Your task to perform on an android device: turn on showing notifications on the lock screen Image 0: 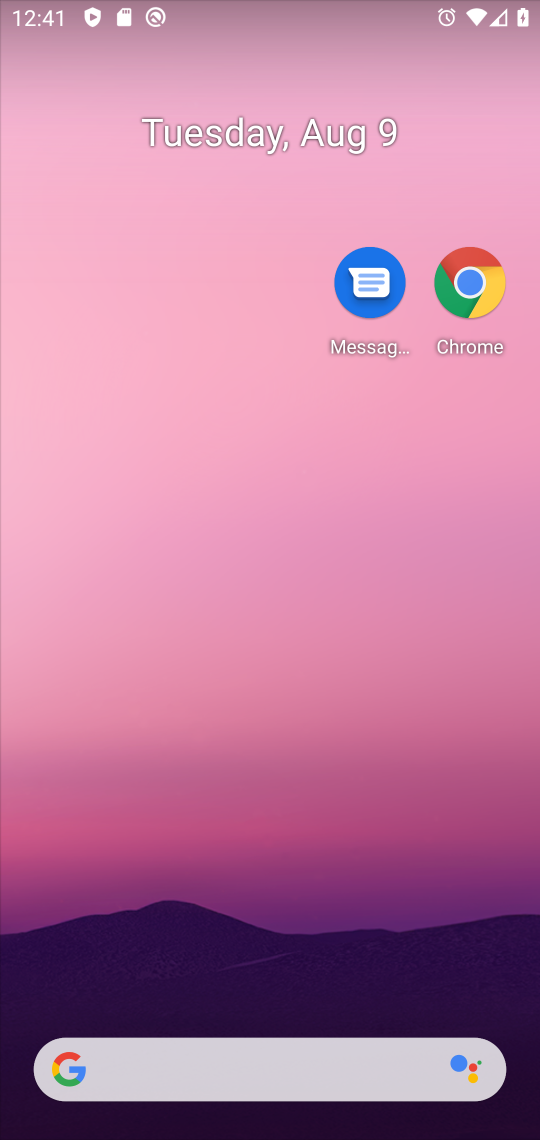
Step 0: drag from (240, 962) to (11, 418)
Your task to perform on an android device: turn on showing notifications on the lock screen Image 1: 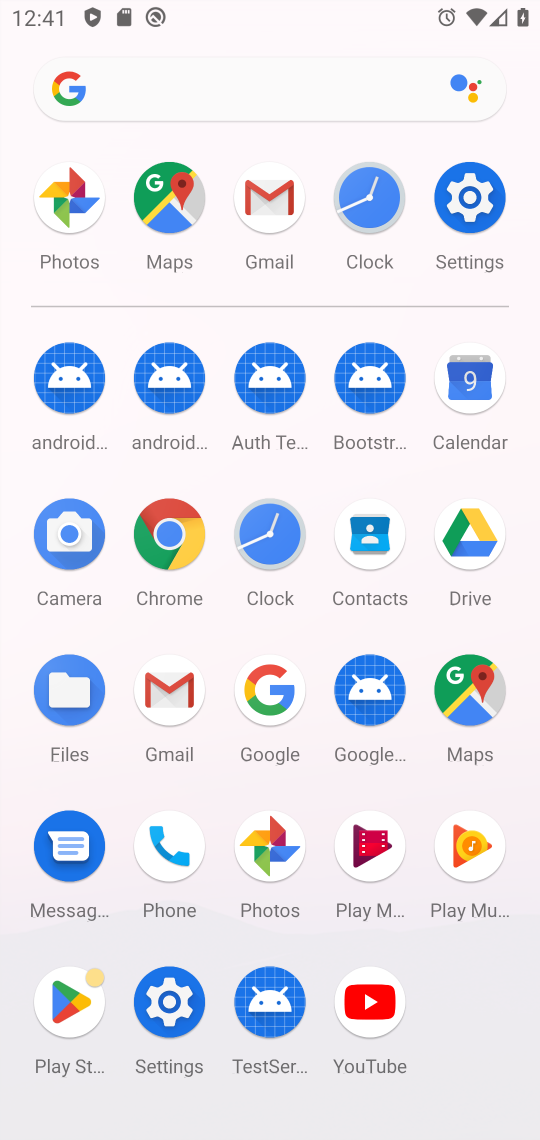
Step 1: click (465, 188)
Your task to perform on an android device: turn on showing notifications on the lock screen Image 2: 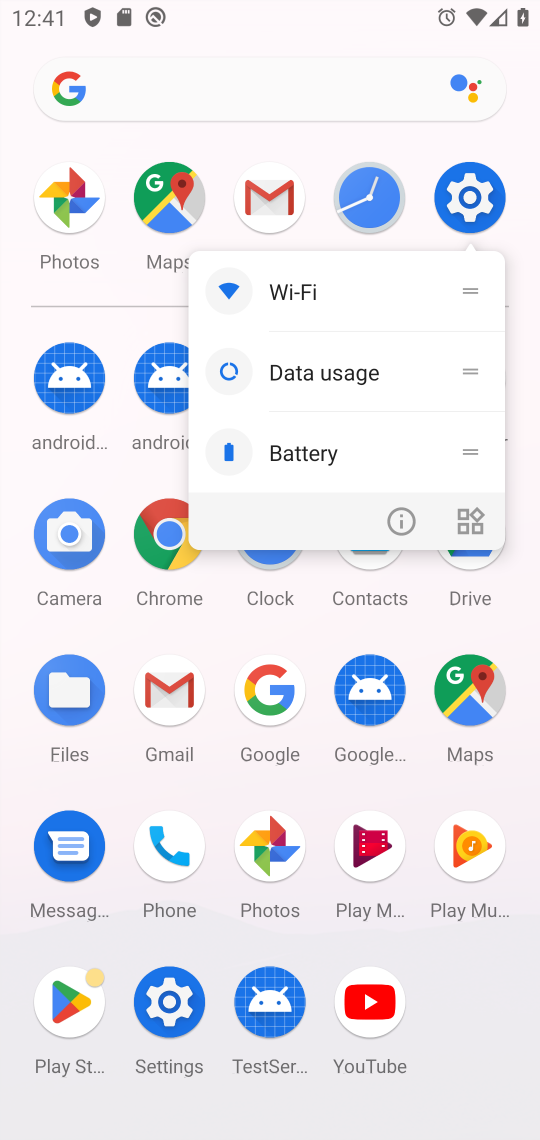
Step 2: click (404, 516)
Your task to perform on an android device: turn on showing notifications on the lock screen Image 3: 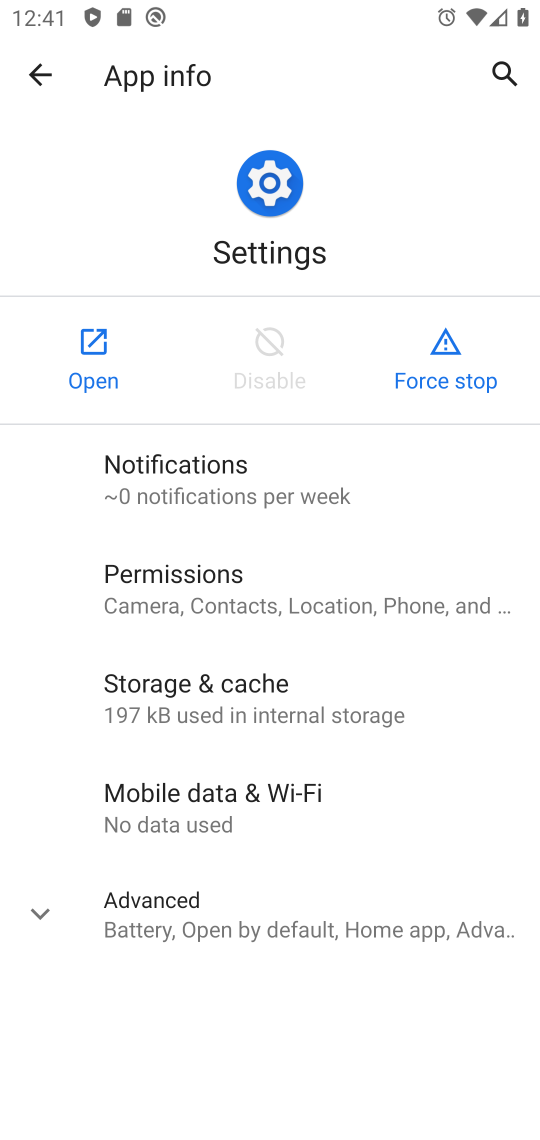
Step 3: click (64, 359)
Your task to perform on an android device: turn on showing notifications on the lock screen Image 4: 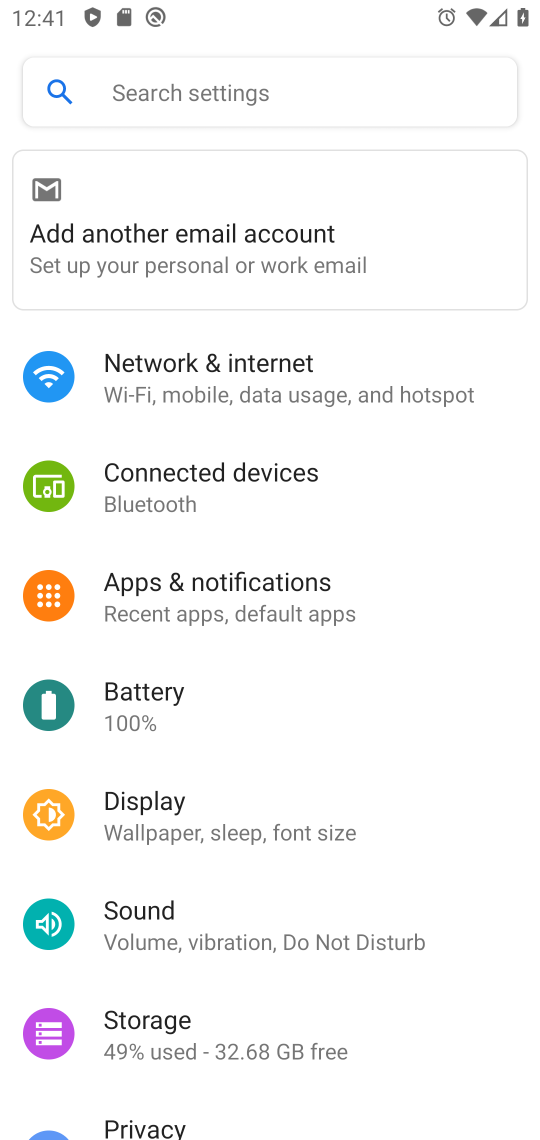
Step 4: click (207, 598)
Your task to perform on an android device: turn on showing notifications on the lock screen Image 5: 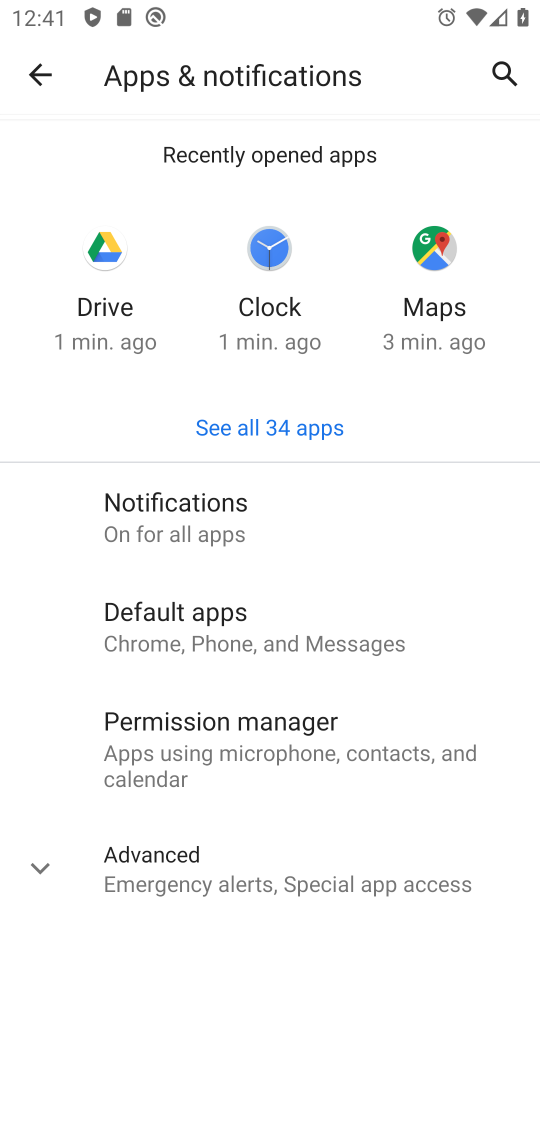
Step 5: click (228, 527)
Your task to perform on an android device: turn on showing notifications on the lock screen Image 6: 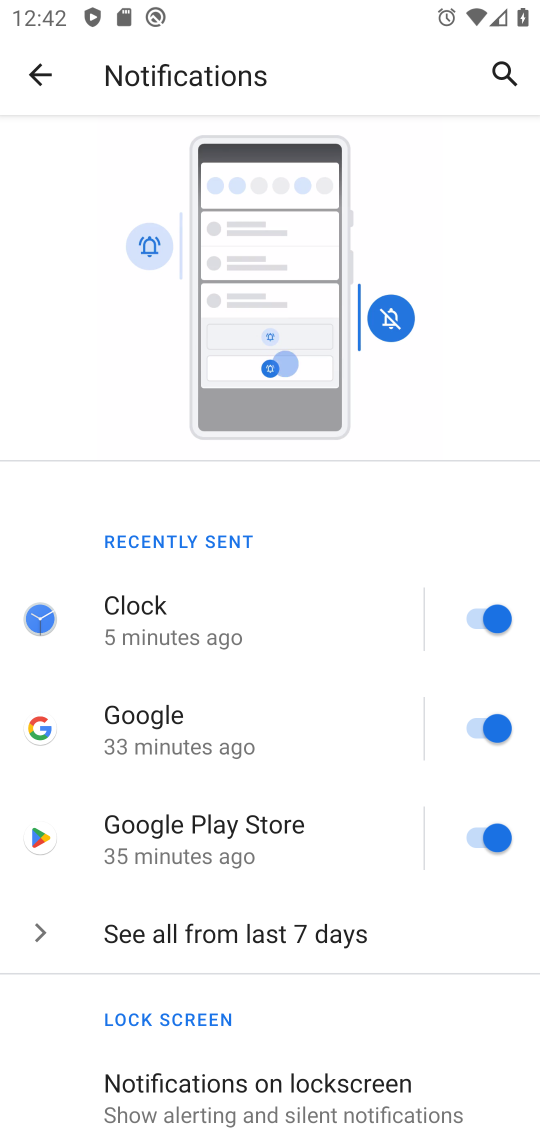
Step 6: drag from (283, 1017) to (450, 170)
Your task to perform on an android device: turn on showing notifications on the lock screen Image 7: 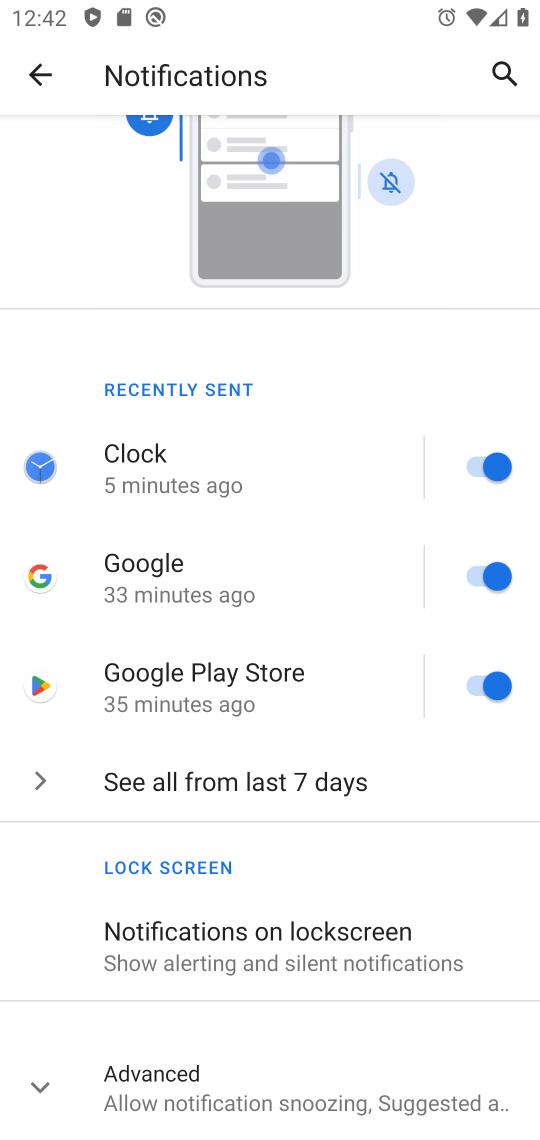
Step 7: click (227, 995)
Your task to perform on an android device: turn on showing notifications on the lock screen Image 8: 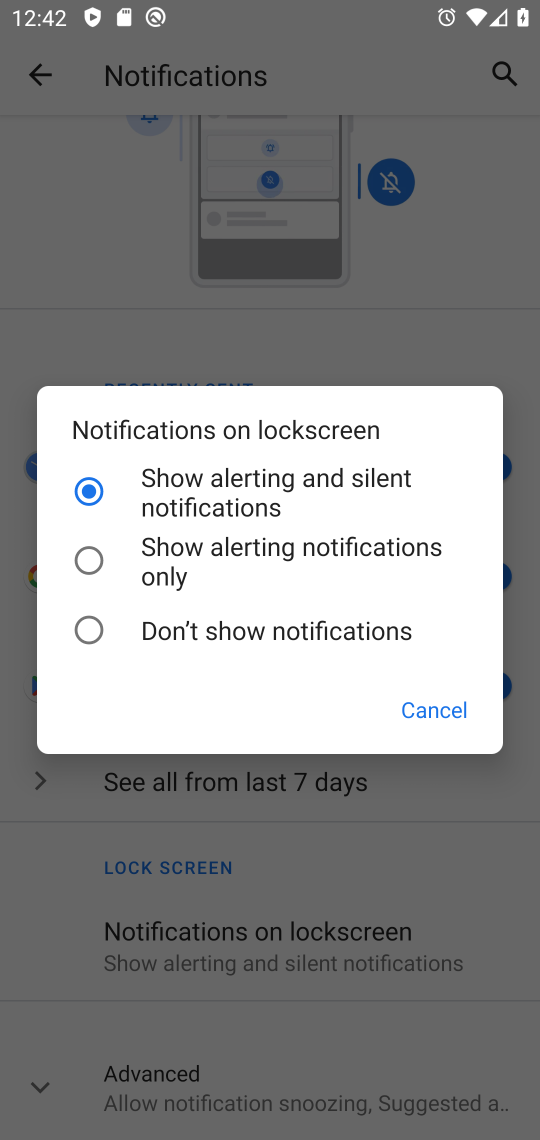
Step 8: click (130, 539)
Your task to perform on an android device: turn on showing notifications on the lock screen Image 9: 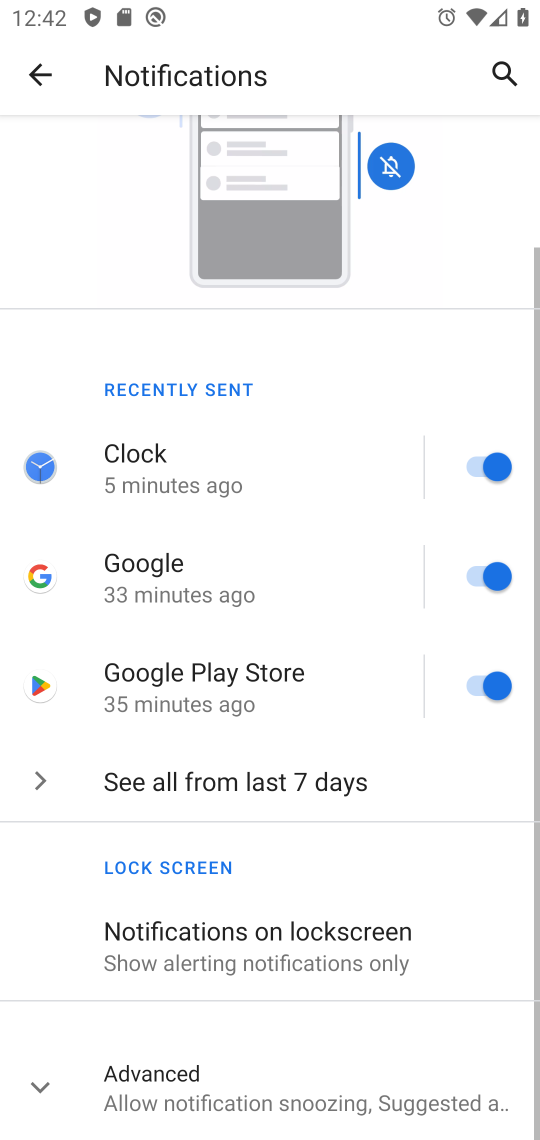
Step 9: task complete